Your task to perform on an android device: check the backup settings in the google photos Image 0: 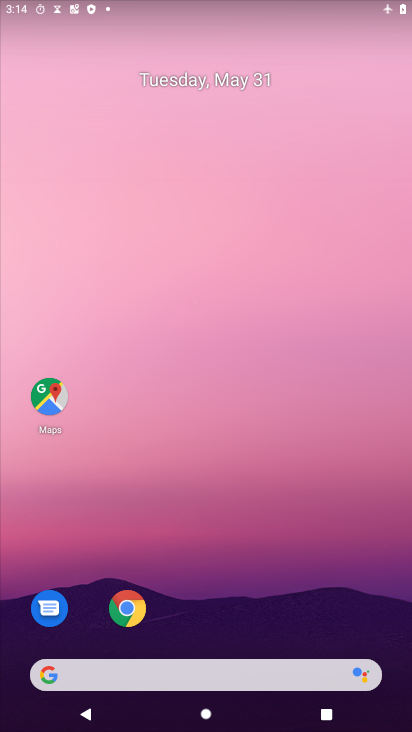
Step 0: drag from (229, 636) to (277, 301)
Your task to perform on an android device: check the backup settings in the google photos Image 1: 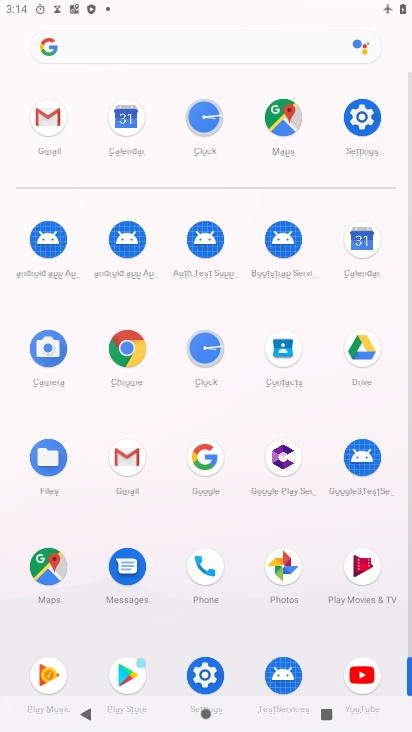
Step 1: click (276, 584)
Your task to perform on an android device: check the backup settings in the google photos Image 2: 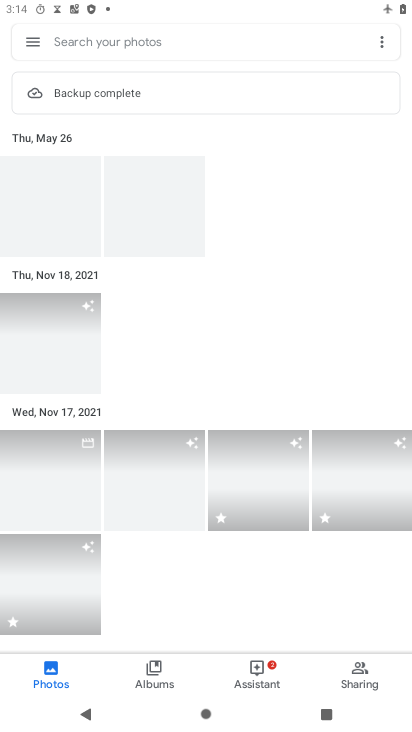
Step 2: click (27, 48)
Your task to perform on an android device: check the backup settings in the google photos Image 3: 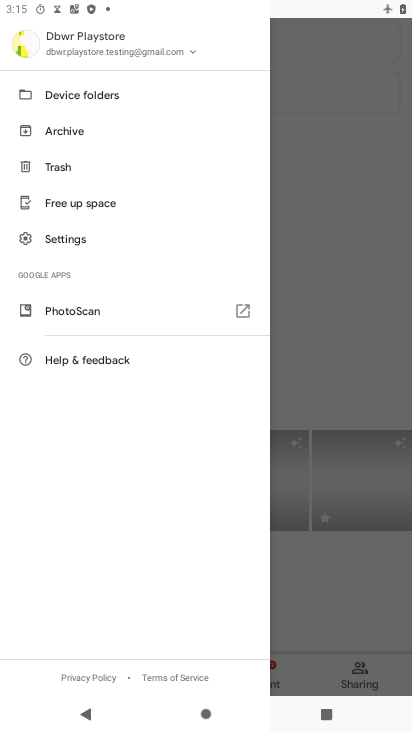
Step 3: click (76, 232)
Your task to perform on an android device: check the backup settings in the google photos Image 4: 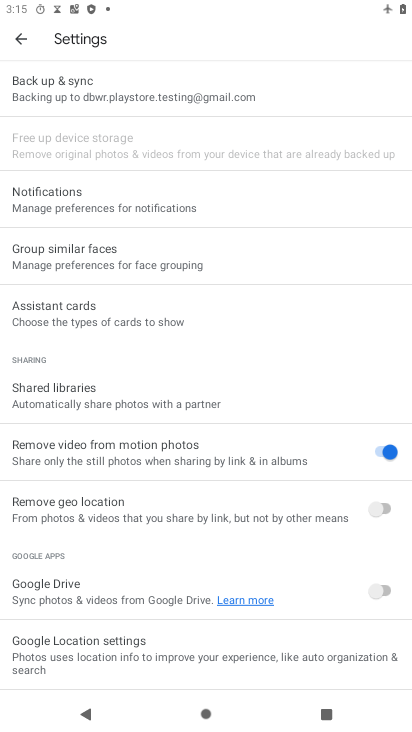
Step 4: click (82, 89)
Your task to perform on an android device: check the backup settings in the google photos Image 5: 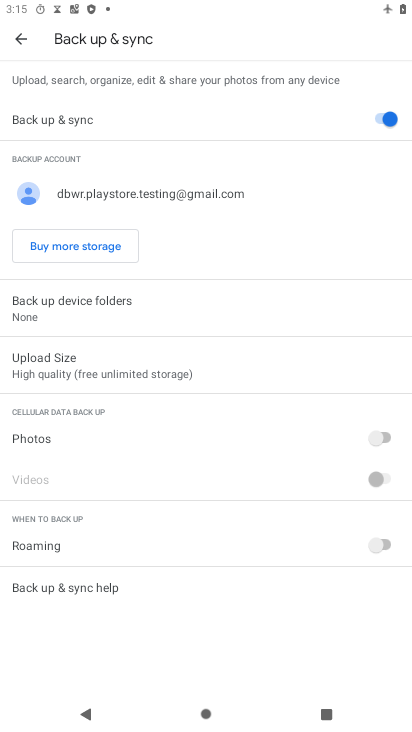
Step 5: task complete